Your task to perform on an android device: Open Youtube and go to "Your channel" Image 0: 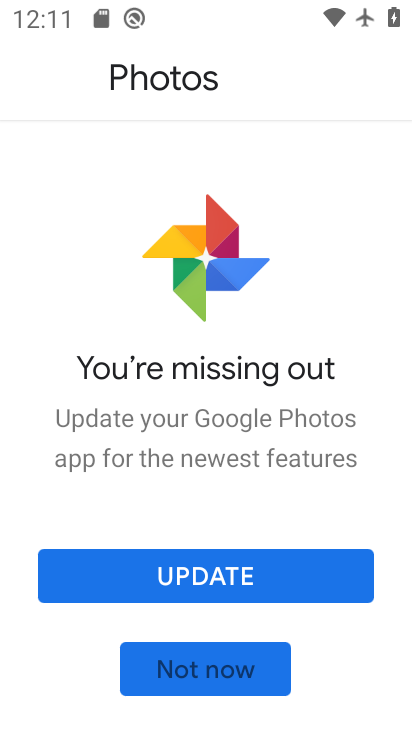
Step 0: press home button
Your task to perform on an android device: Open Youtube and go to "Your channel" Image 1: 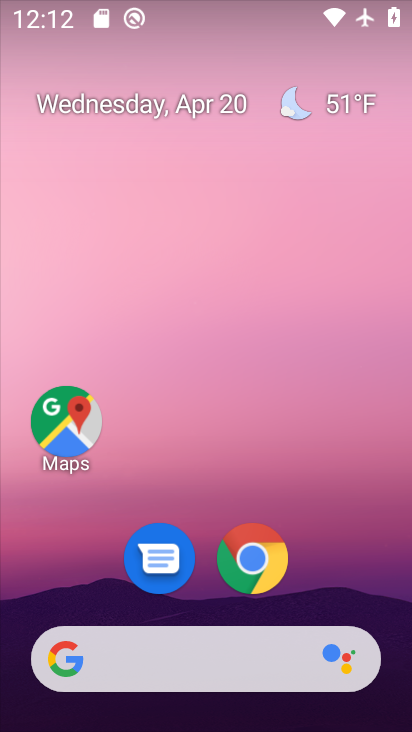
Step 1: drag from (389, 603) to (355, 123)
Your task to perform on an android device: Open Youtube and go to "Your channel" Image 2: 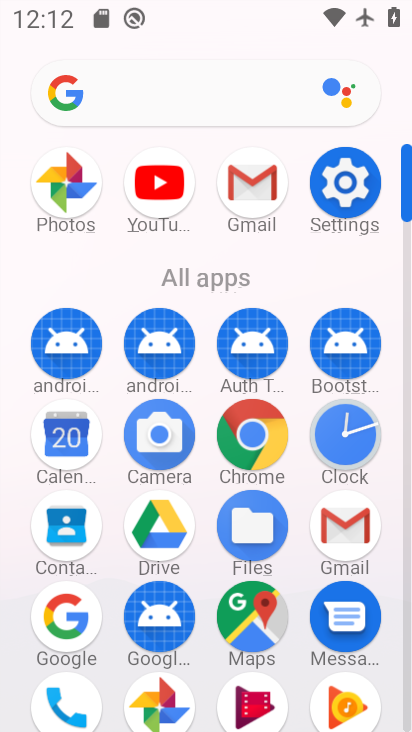
Step 2: click (406, 703)
Your task to perform on an android device: Open Youtube and go to "Your channel" Image 3: 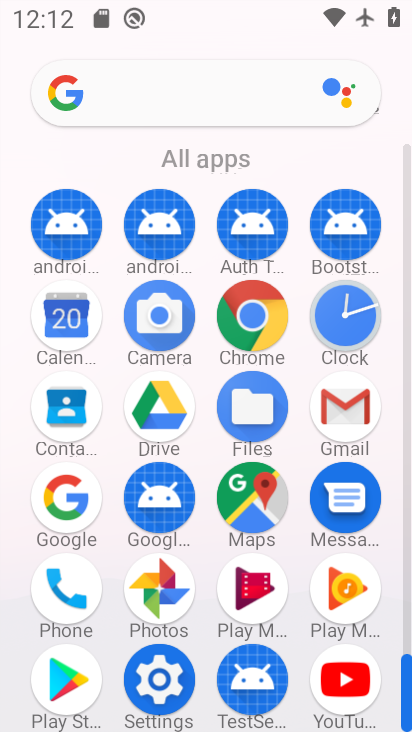
Step 3: click (346, 685)
Your task to perform on an android device: Open Youtube and go to "Your channel" Image 4: 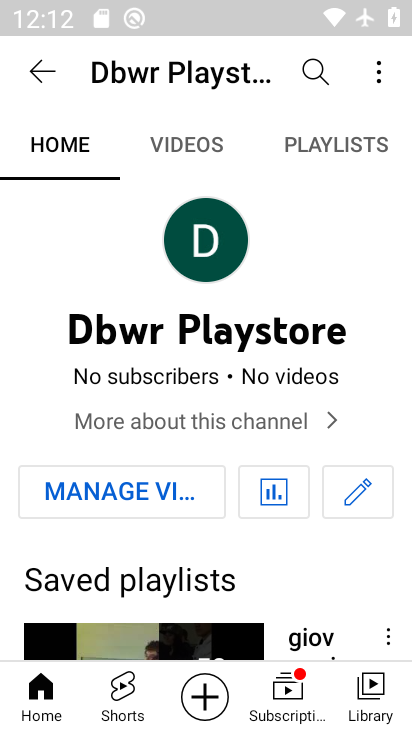
Step 4: task complete